Your task to perform on an android device: Do I have any events this weekend? Image 0: 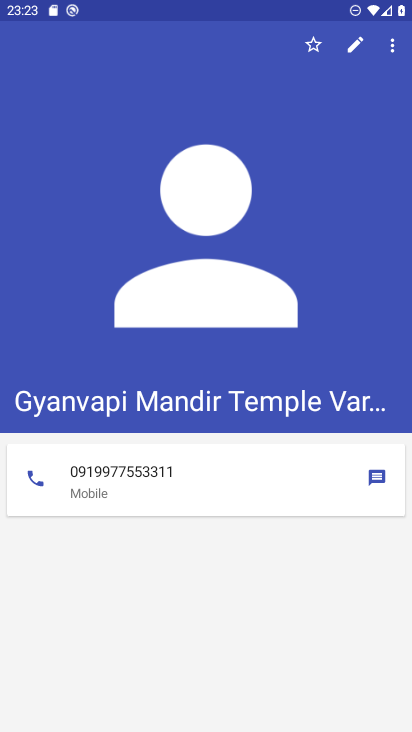
Step 0: press home button
Your task to perform on an android device: Do I have any events this weekend? Image 1: 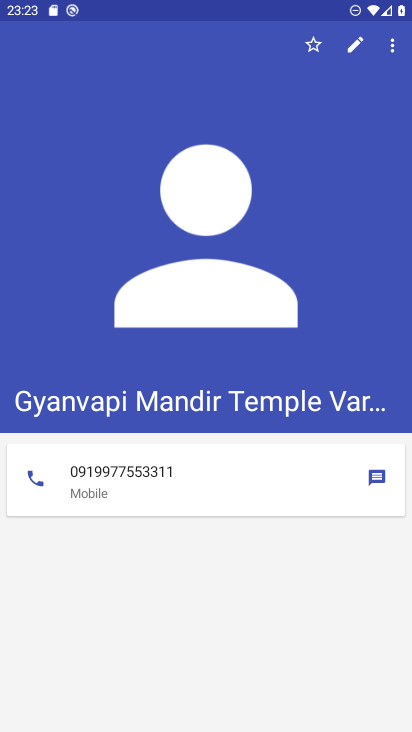
Step 1: press home button
Your task to perform on an android device: Do I have any events this weekend? Image 2: 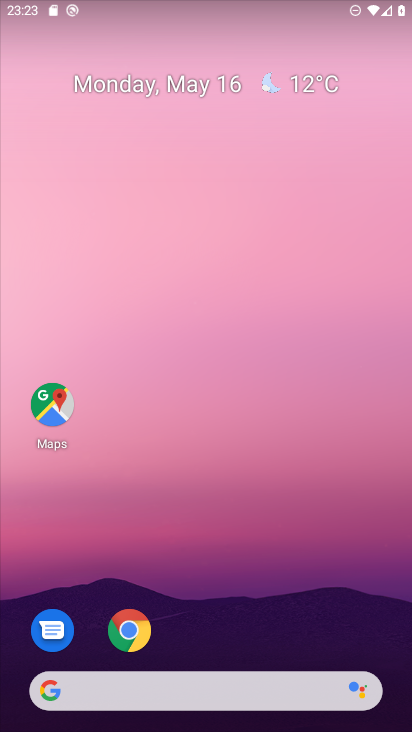
Step 2: drag from (275, 539) to (262, 150)
Your task to perform on an android device: Do I have any events this weekend? Image 3: 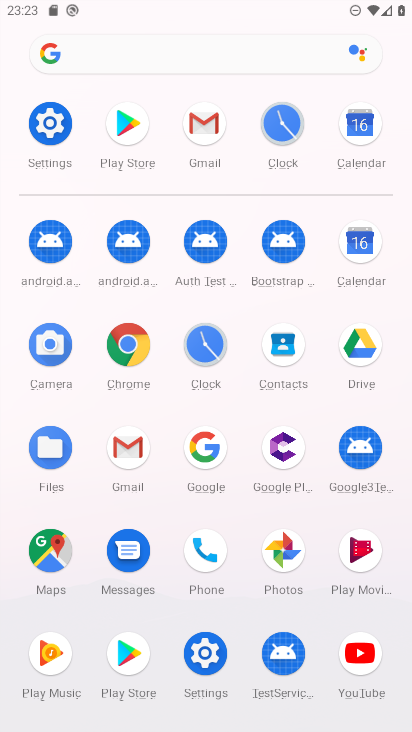
Step 3: click (363, 118)
Your task to perform on an android device: Do I have any events this weekend? Image 4: 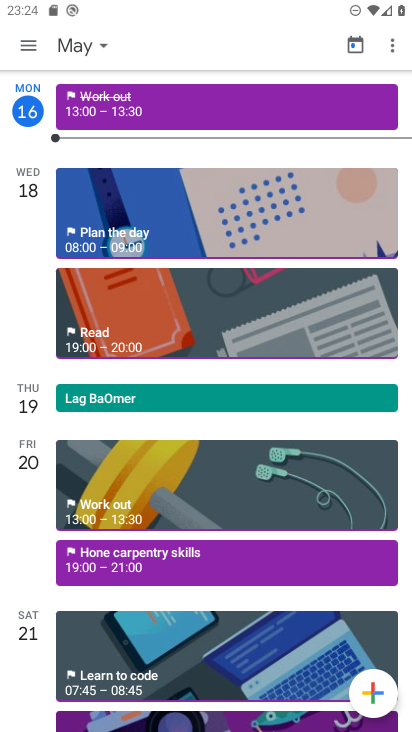
Step 4: click (26, 42)
Your task to perform on an android device: Do I have any events this weekend? Image 5: 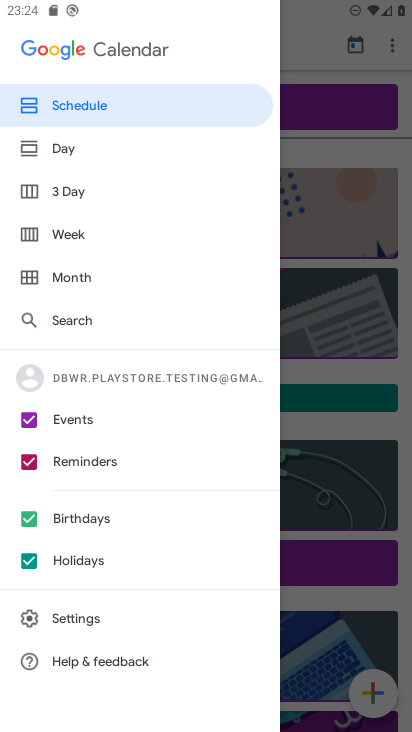
Step 5: click (62, 228)
Your task to perform on an android device: Do I have any events this weekend? Image 6: 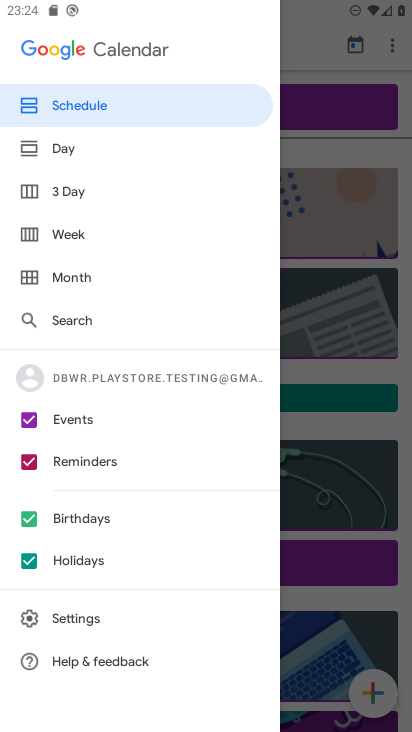
Step 6: click (31, 229)
Your task to perform on an android device: Do I have any events this weekend? Image 7: 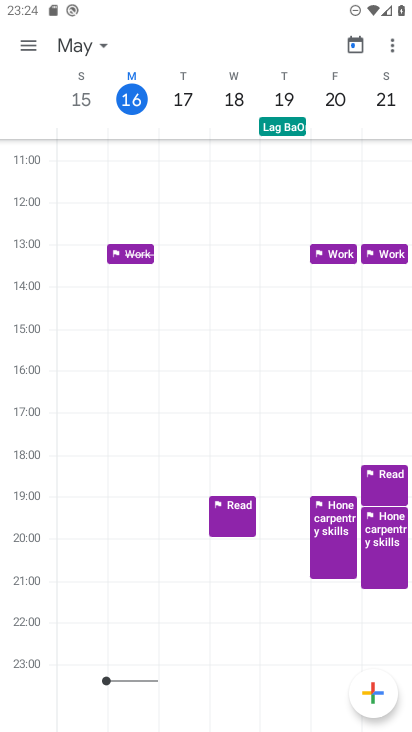
Step 7: click (380, 83)
Your task to perform on an android device: Do I have any events this weekend? Image 8: 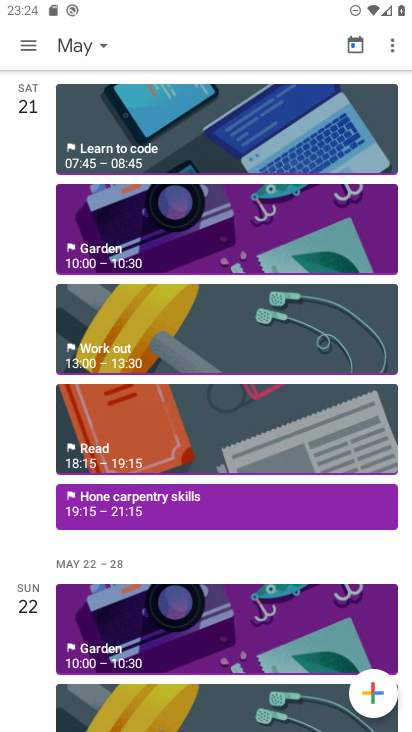
Step 8: task complete